Your task to perform on an android device: Search for pizza restaurants on Maps Image 0: 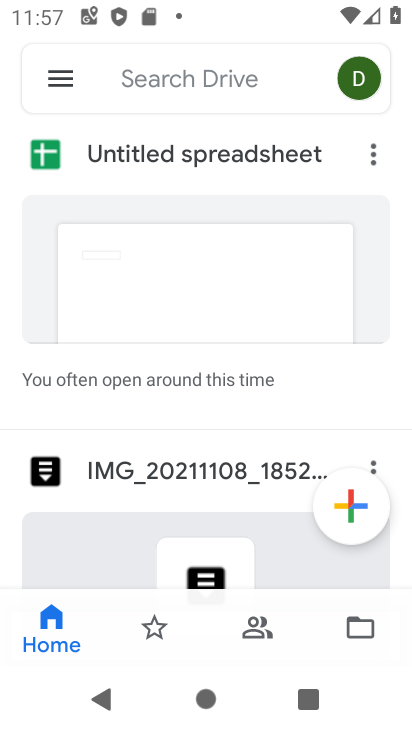
Step 0: press home button
Your task to perform on an android device: Search for pizza restaurants on Maps Image 1: 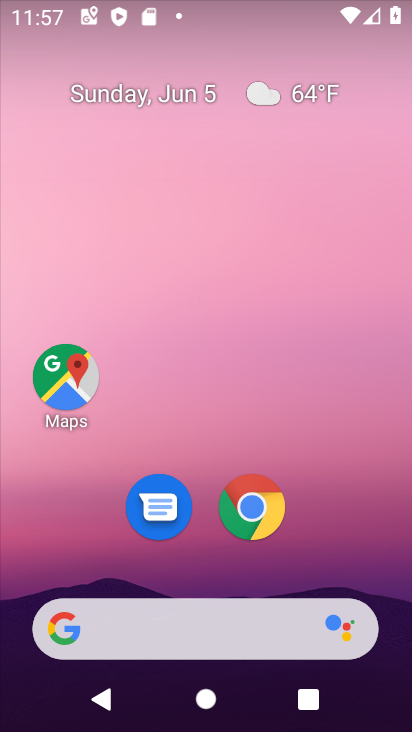
Step 1: drag from (356, 438) to (357, 157)
Your task to perform on an android device: Search for pizza restaurants on Maps Image 2: 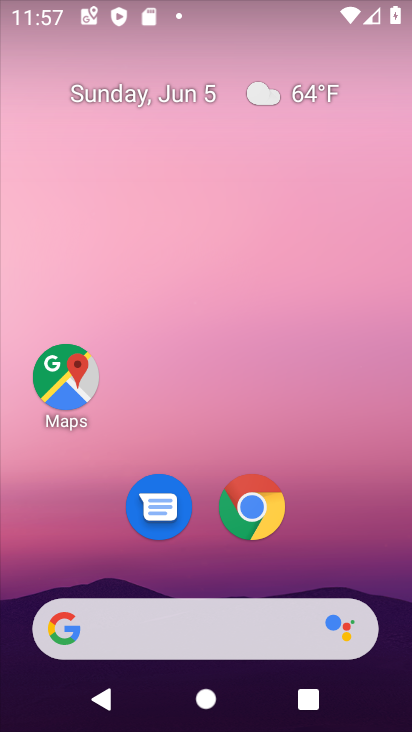
Step 2: click (62, 383)
Your task to perform on an android device: Search for pizza restaurants on Maps Image 3: 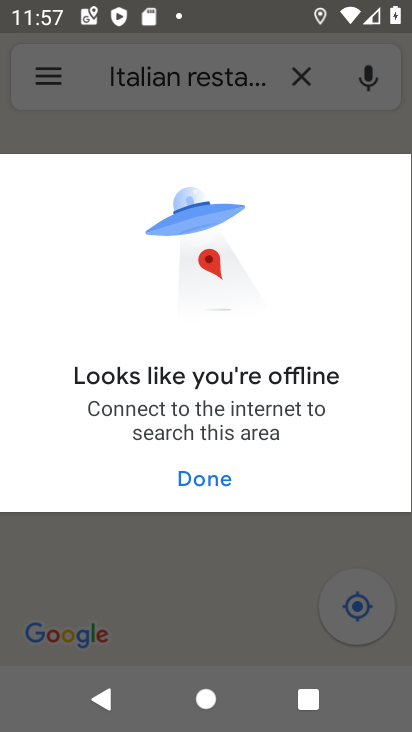
Step 3: click (239, 484)
Your task to perform on an android device: Search for pizza restaurants on Maps Image 4: 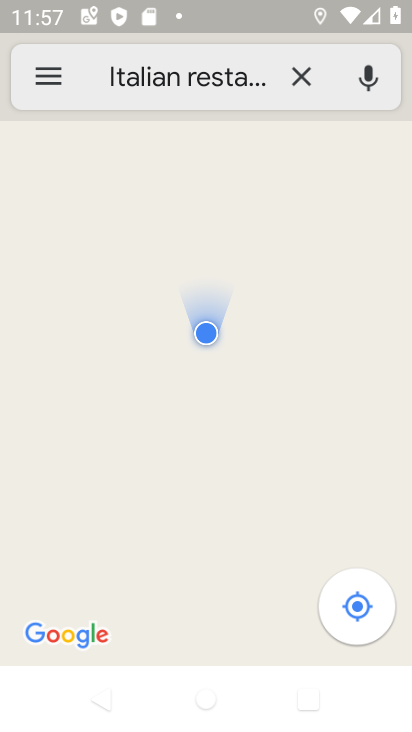
Step 4: click (196, 92)
Your task to perform on an android device: Search for pizza restaurants on Maps Image 5: 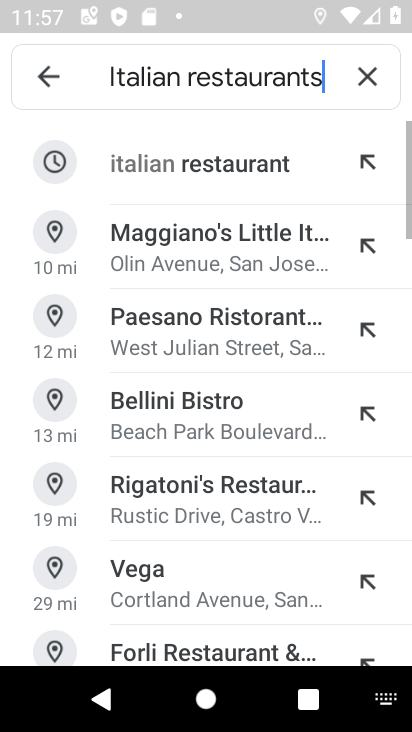
Step 5: click (365, 77)
Your task to perform on an android device: Search for pizza restaurants on Maps Image 6: 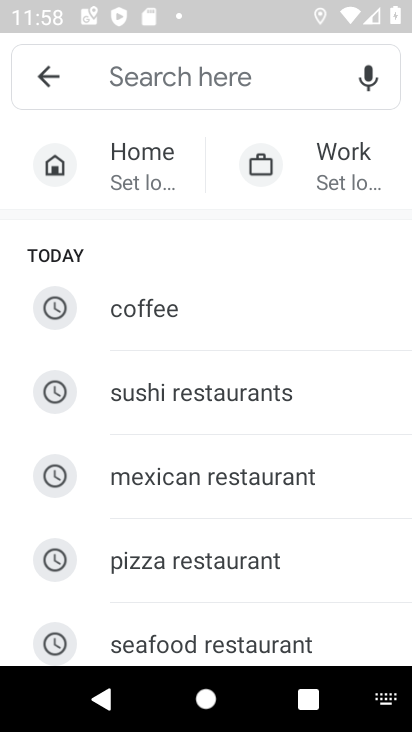
Step 6: type "pizza restaurants"
Your task to perform on an android device: Search for pizza restaurants on Maps Image 7: 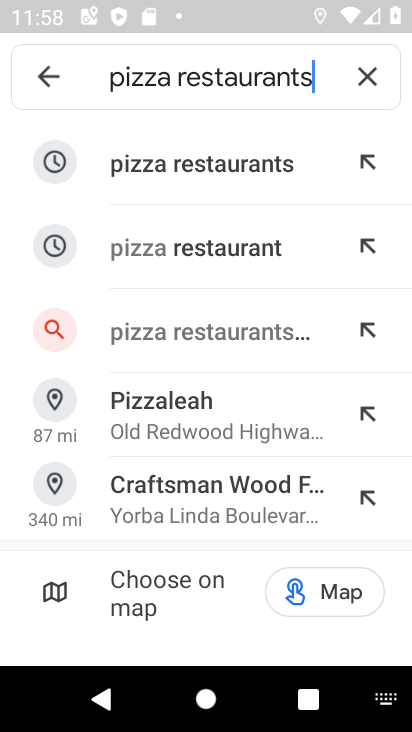
Step 7: click (220, 175)
Your task to perform on an android device: Search for pizza restaurants on Maps Image 8: 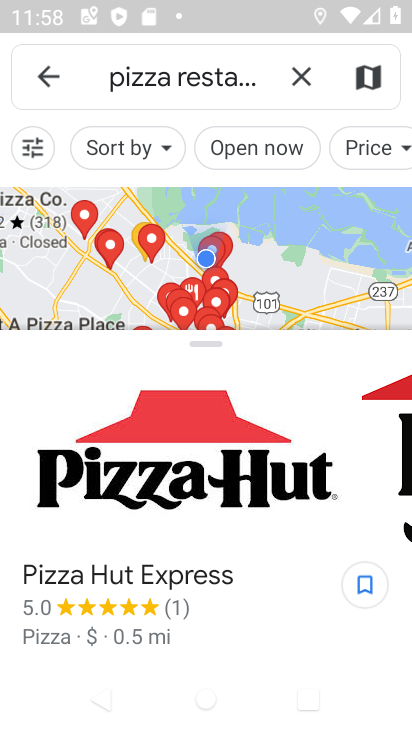
Step 8: task complete